Your task to perform on an android device: Open calendar and show me the first week of next month Image 0: 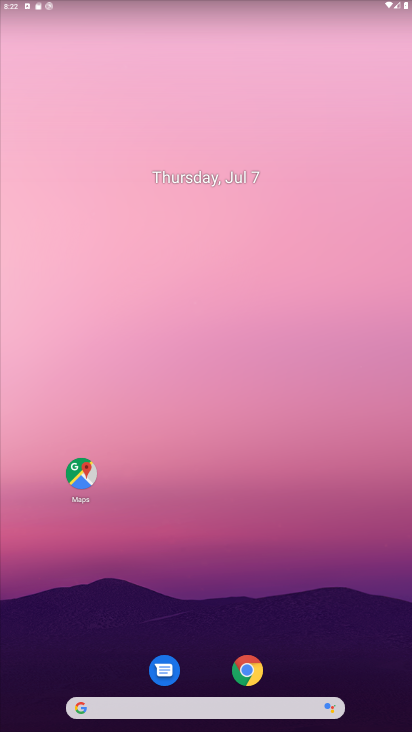
Step 0: drag from (28, 663) to (262, 104)
Your task to perform on an android device: Open calendar and show me the first week of next month Image 1: 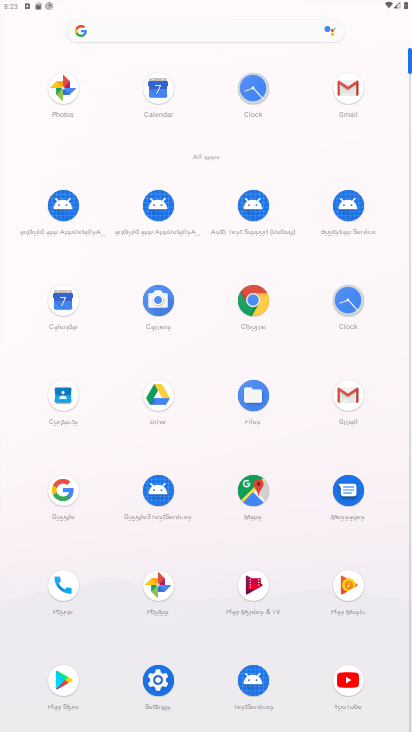
Step 1: click (64, 305)
Your task to perform on an android device: Open calendar and show me the first week of next month Image 2: 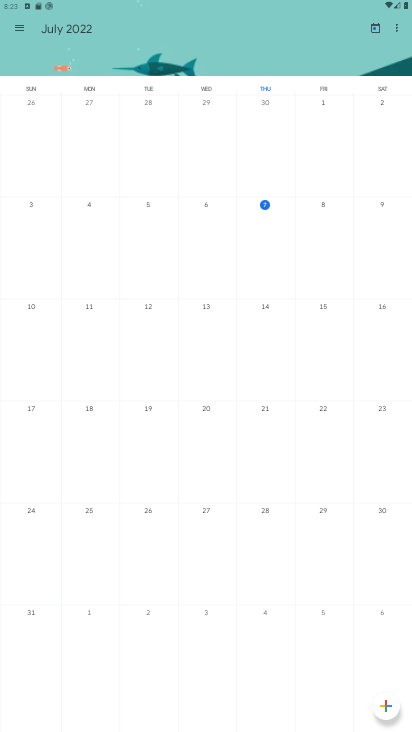
Step 2: drag from (391, 275) to (0, 239)
Your task to perform on an android device: Open calendar and show me the first week of next month Image 3: 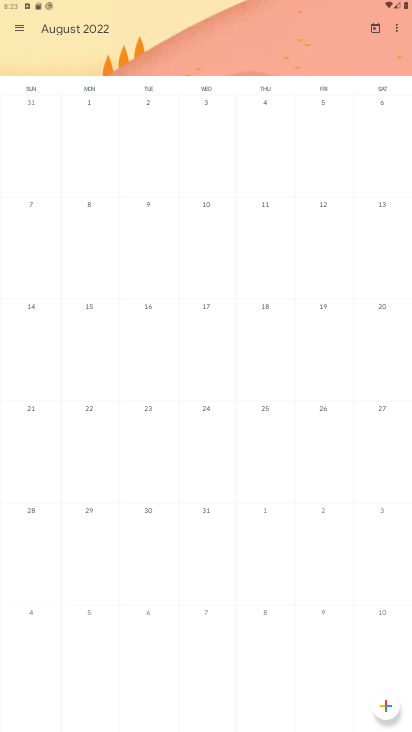
Step 3: click (86, 148)
Your task to perform on an android device: Open calendar and show me the first week of next month Image 4: 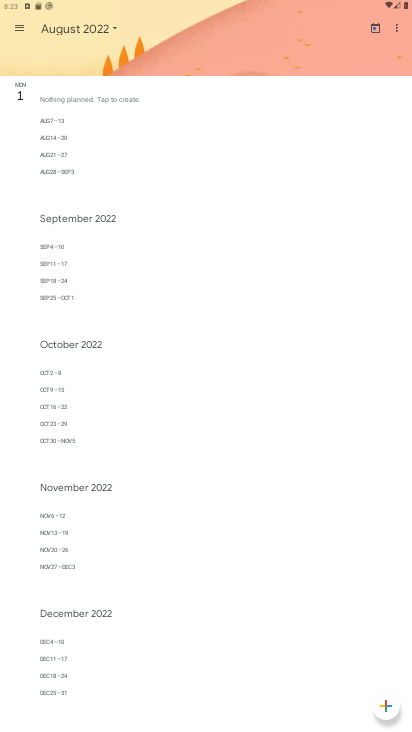
Step 4: press back button
Your task to perform on an android device: Open calendar and show me the first week of next month Image 5: 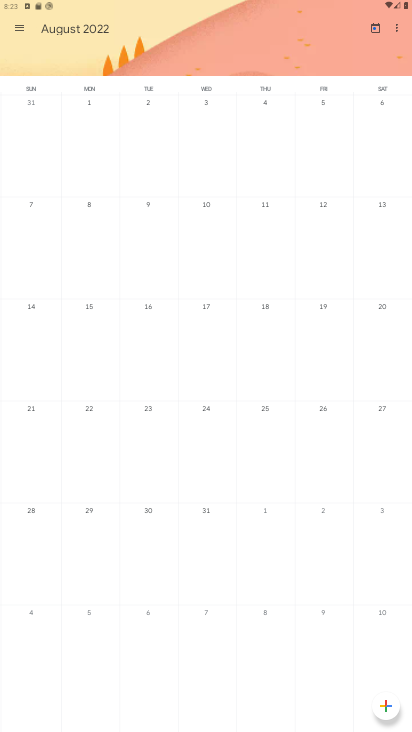
Step 5: click (83, 30)
Your task to perform on an android device: Open calendar and show me the first week of next month Image 6: 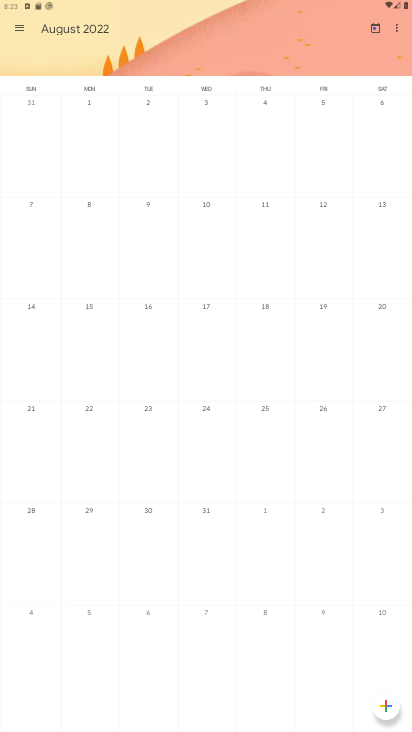
Step 6: click (367, 25)
Your task to perform on an android device: Open calendar and show me the first week of next month Image 7: 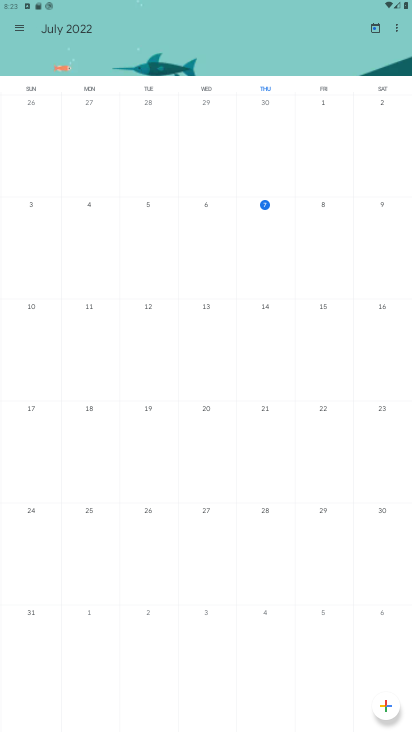
Step 7: task complete